Your task to perform on an android device: Go to sound settings Image 0: 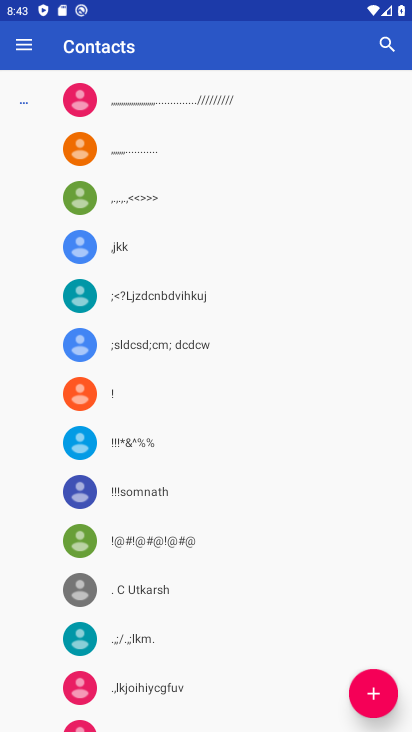
Step 0: press home button
Your task to perform on an android device: Go to sound settings Image 1: 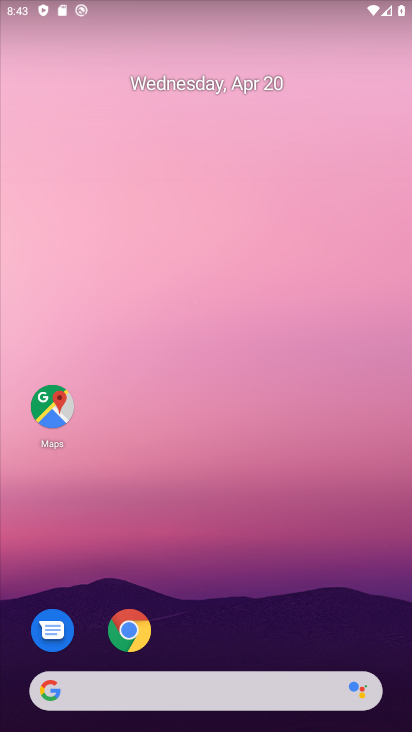
Step 1: drag from (202, 645) to (202, 190)
Your task to perform on an android device: Go to sound settings Image 2: 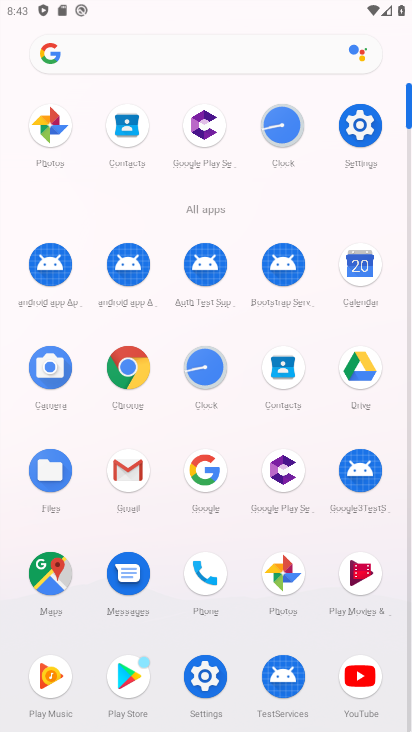
Step 2: click (349, 127)
Your task to perform on an android device: Go to sound settings Image 3: 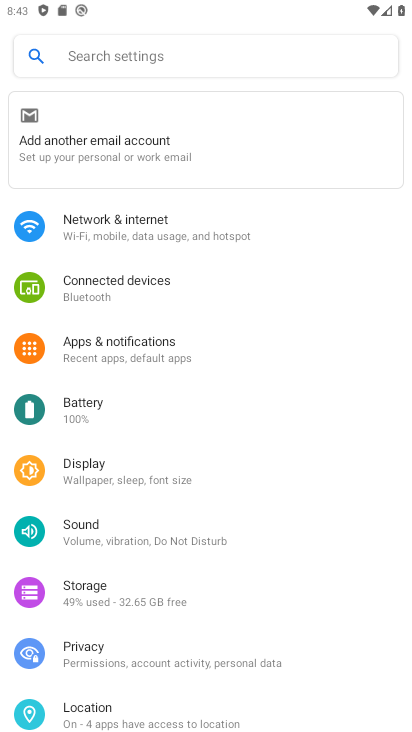
Step 3: click (142, 531)
Your task to perform on an android device: Go to sound settings Image 4: 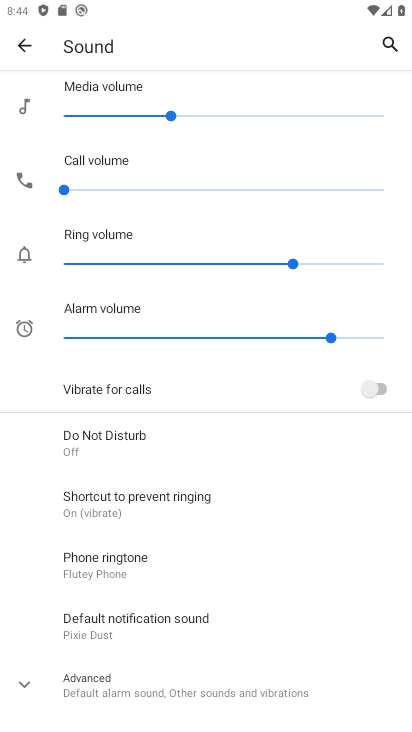
Step 4: task complete